Your task to perform on an android device: move a message to another label in the gmail app Image 0: 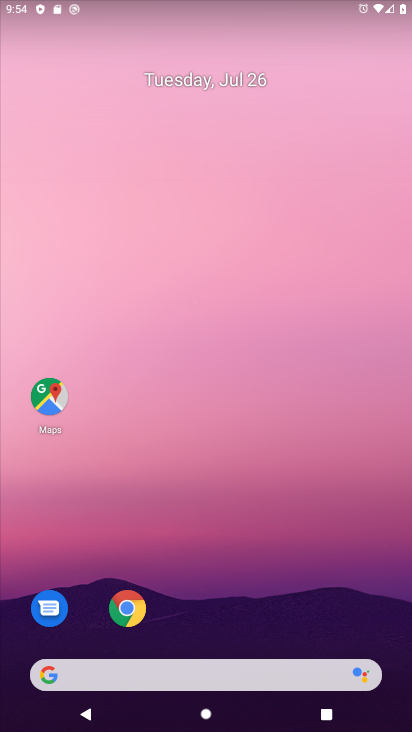
Step 0: drag from (256, 375) to (263, 51)
Your task to perform on an android device: move a message to another label in the gmail app Image 1: 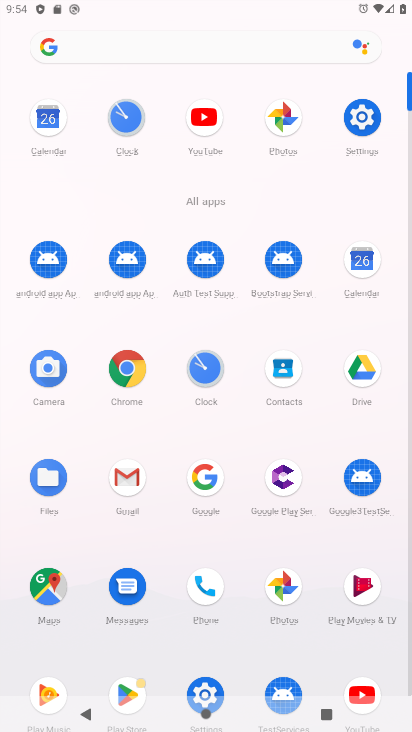
Step 1: click (118, 475)
Your task to perform on an android device: move a message to another label in the gmail app Image 2: 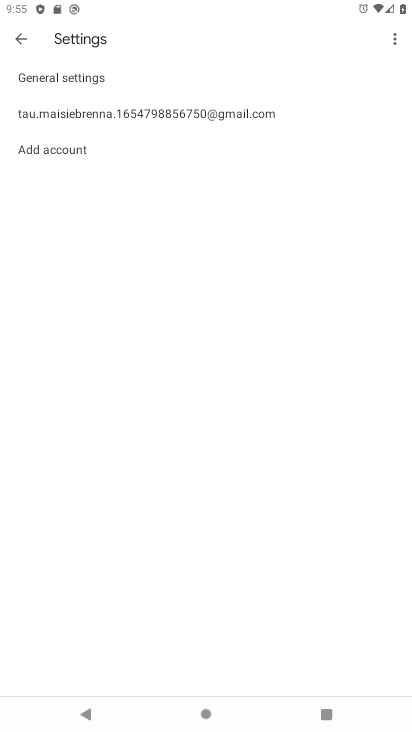
Step 2: click (167, 111)
Your task to perform on an android device: move a message to another label in the gmail app Image 3: 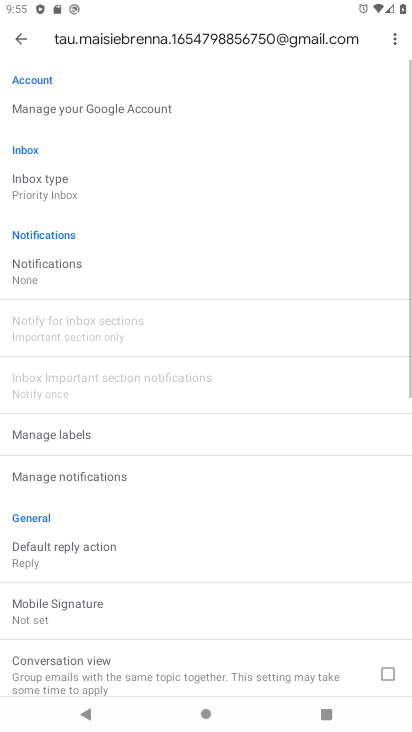
Step 3: click (21, 43)
Your task to perform on an android device: move a message to another label in the gmail app Image 4: 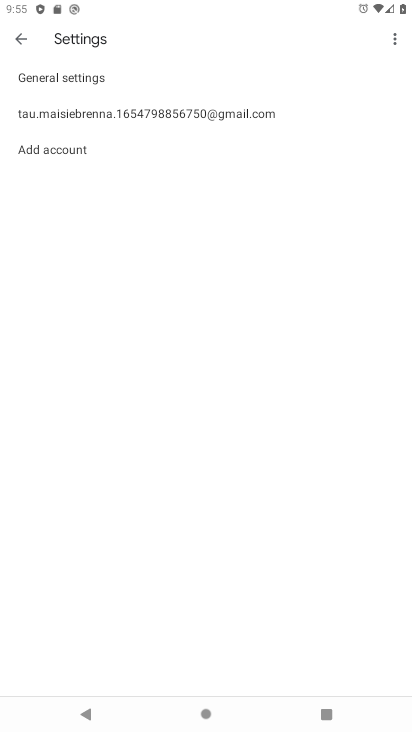
Step 4: click (22, 35)
Your task to perform on an android device: move a message to another label in the gmail app Image 5: 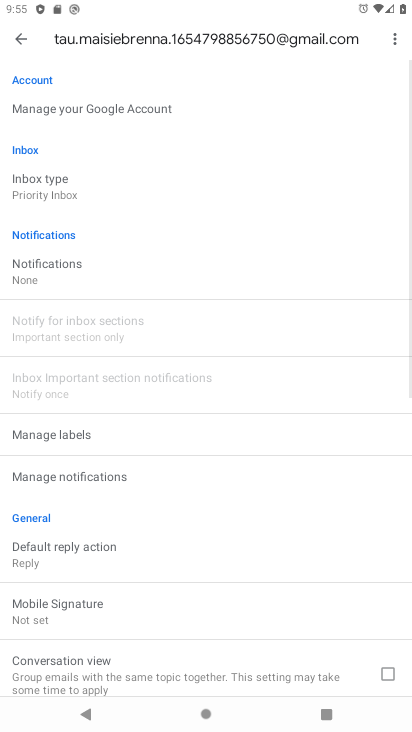
Step 5: click (17, 39)
Your task to perform on an android device: move a message to another label in the gmail app Image 6: 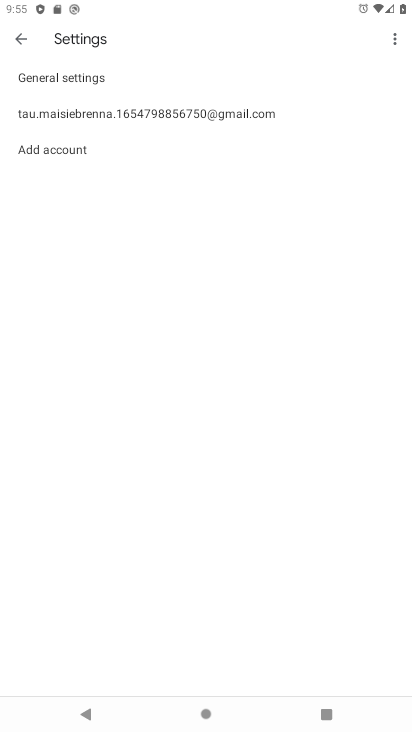
Step 6: click (24, 36)
Your task to perform on an android device: move a message to another label in the gmail app Image 7: 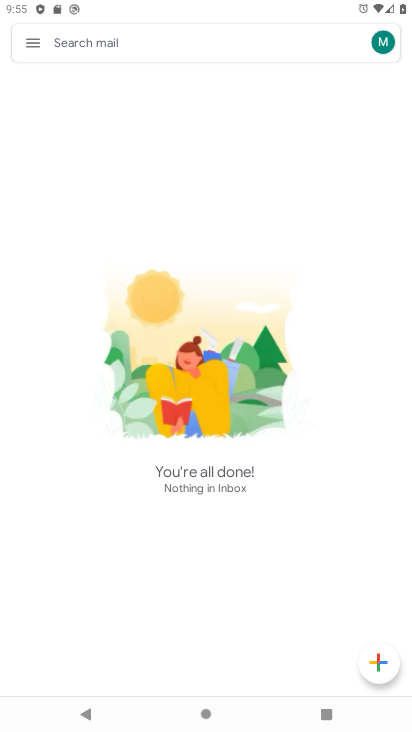
Step 7: task complete